Your task to perform on an android device: search for starred emails in the gmail app Image 0: 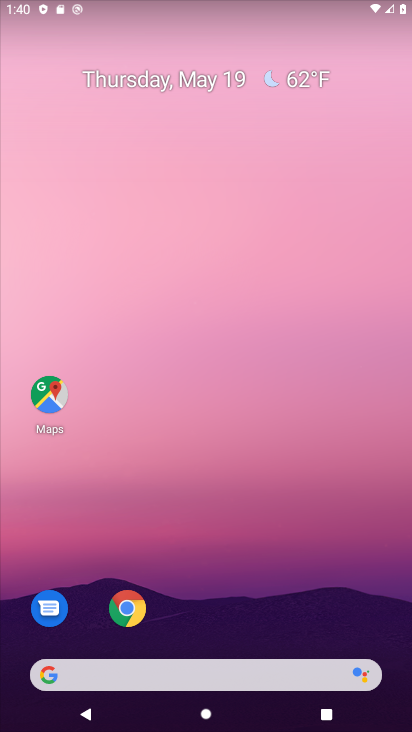
Step 0: drag from (211, 629) to (189, 167)
Your task to perform on an android device: search for starred emails in the gmail app Image 1: 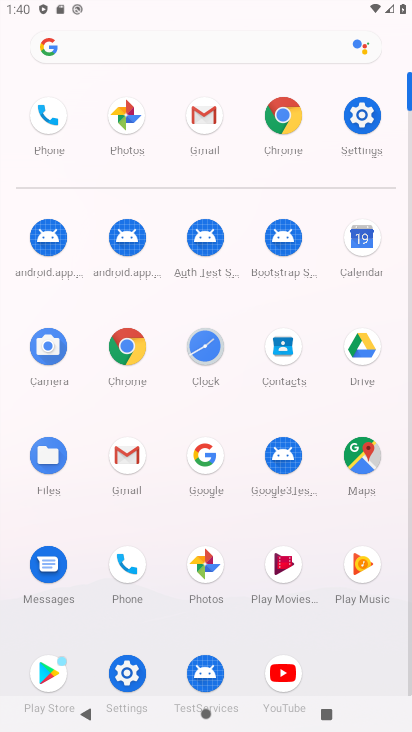
Step 1: click (189, 110)
Your task to perform on an android device: search for starred emails in the gmail app Image 2: 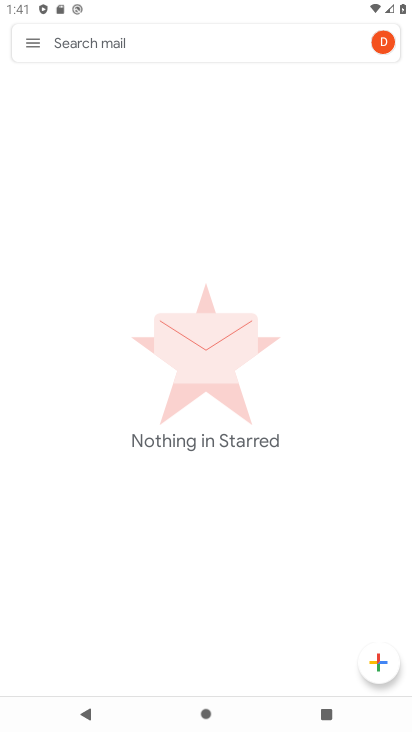
Step 2: click (20, 41)
Your task to perform on an android device: search for starred emails in the gmail app Image 3: 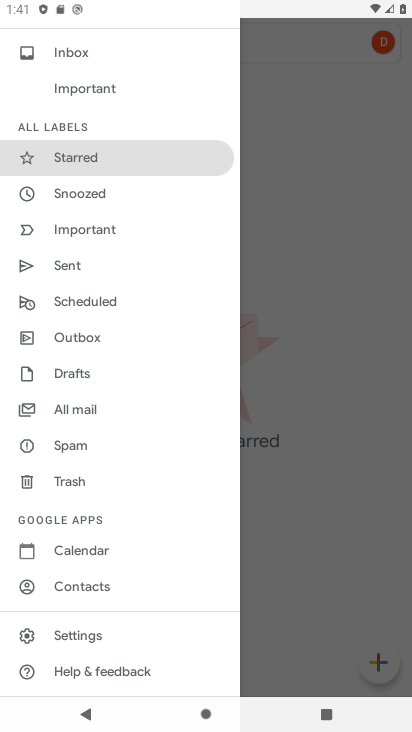
Step 3: click (199, 157)
Your task to perform on an android device: search for starred emails in the gmail app Image 4: 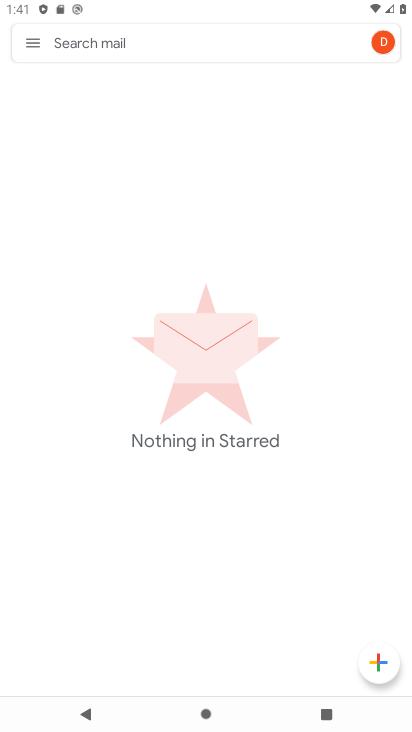
Step 4: task complete